Your task to perform on an android device: Open the web browser Image 0: 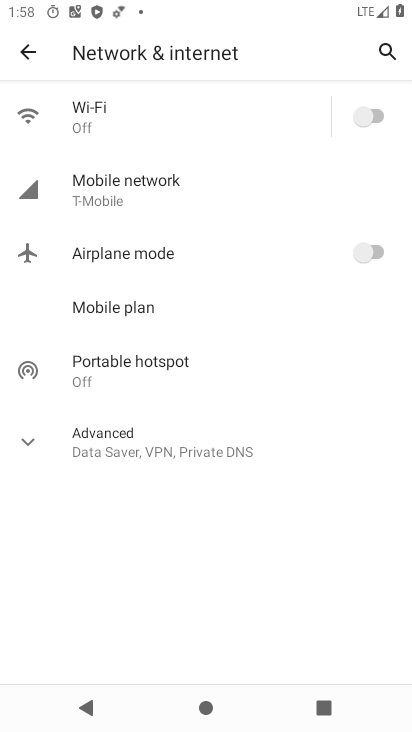
Step 0: press home button
Your task to perform on an android device: Open the web browser Image 1: 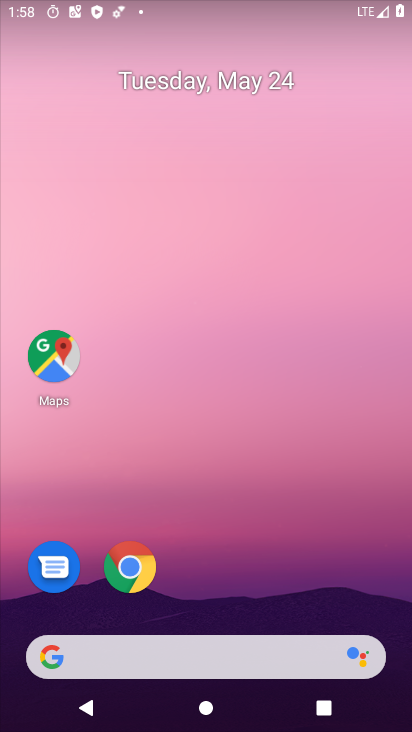
Step 1: drag from (188, 603) to (384, 12)
Your task to perform on an android device: Open the web browser Image 2: 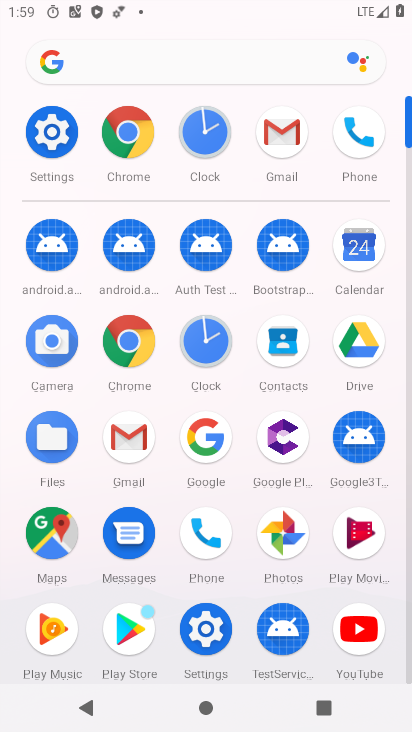
Step 2: click (120, 332)
Your task to perform on an android device: Open the web browser Image 3: 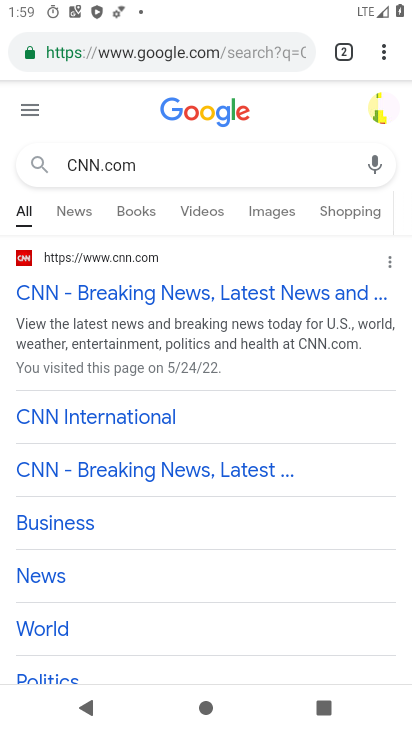
Step 3: task complete